Your task to perform on an android device: open app "Adobe Express: Graphic Design" (install if not already installed) and enter user name: "deliveries@gmail.com" and password: "regimentation" Image 0: 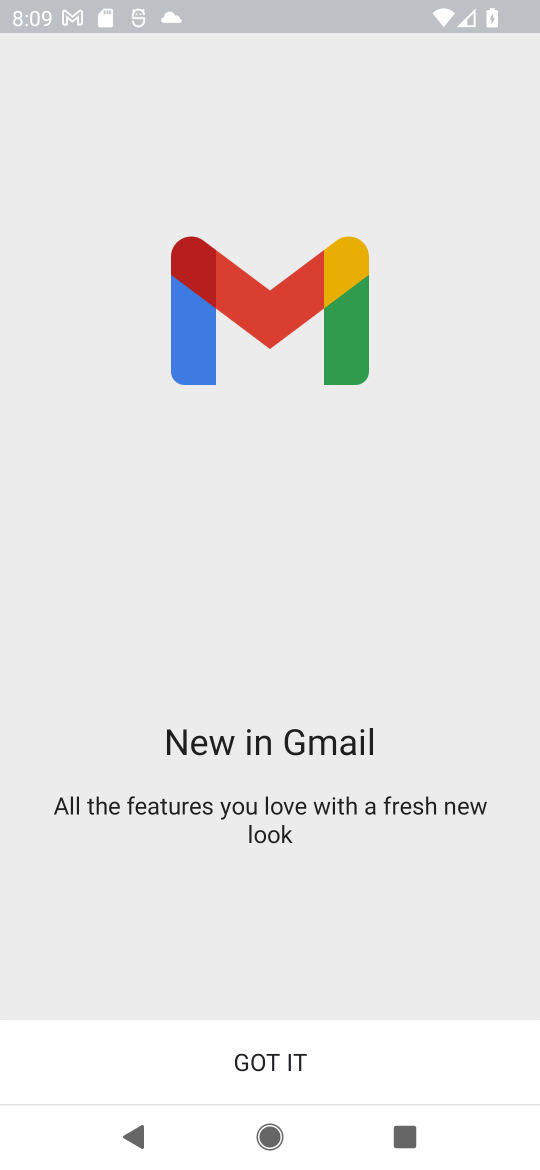
Step 0: press home button
Your task to perform on an android device: open app "Adobe Express: Graphic Design" (install if not already installed) and enter user name: "deliveries@gmail.com" and password: "regimentation" Image 1: 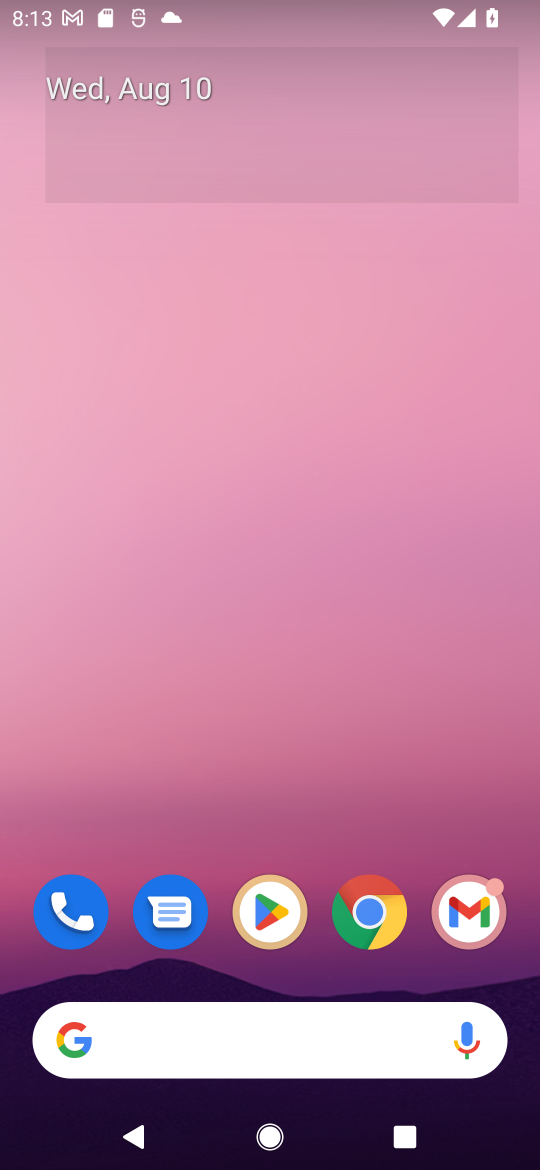
Step 1: drag from (408, 969) to (241, 6)
Your task to perform on an android device: open app "Adobe Express: Graphic Design" (install if not already installed) and enter user name: "deliveries@gmail.com" and password: "regimentation" Image 2: 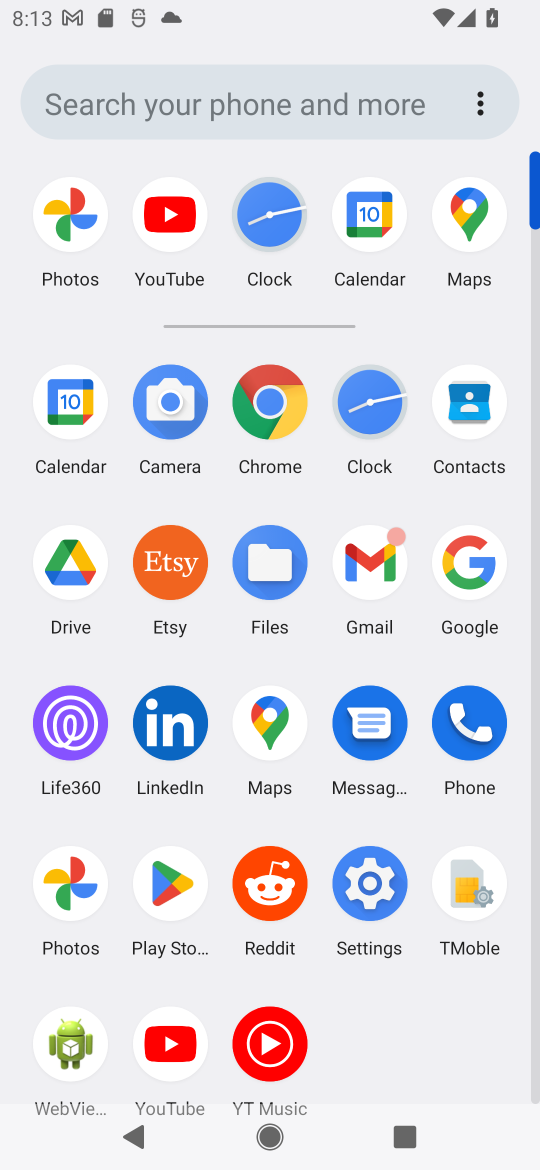
Step 2: click (152, 899)
Your task to perform on an android device: open app "Adobe Express: Graphic Design" (install if not already installed) and enter user name: "deliveries@gmail.com" and password: "regimentation" Image 3: 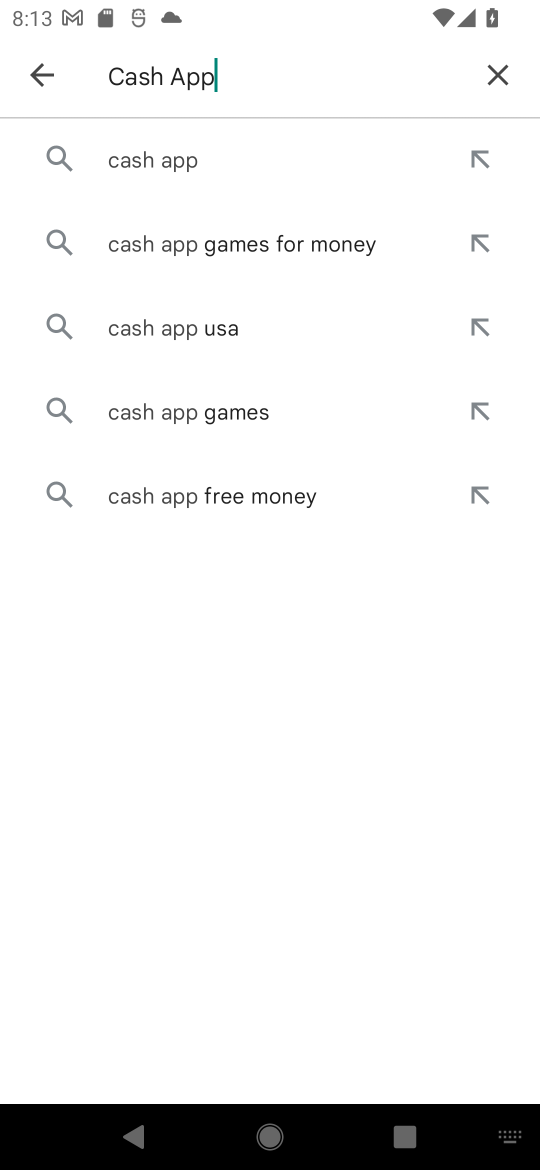
Step 3: press back button
Your task to perform on an android device: open app "Adobe Express: Graphic Design" (install if not already installed) and enter user name: "deliveries@gmail.com" and password: "regimentation" Image 4: 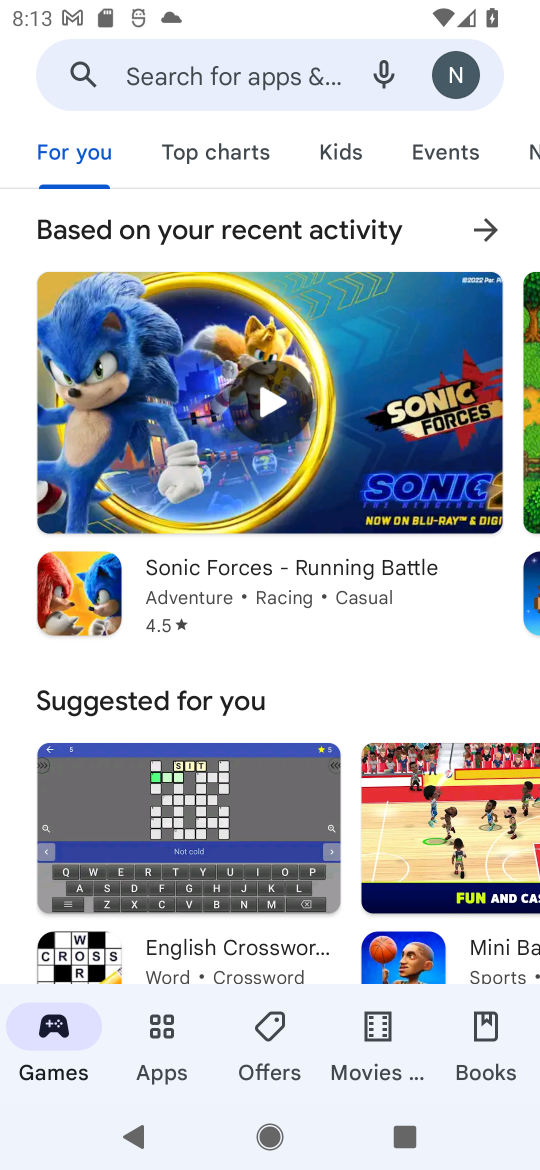
Step 4: click (197, 78)
Your task to perform on an android device: open app "Adobe Express: Graphic Design" (install if not already installed) and enter user name: "deliveries@gmail.com" and password: "regimentation" Image 5: 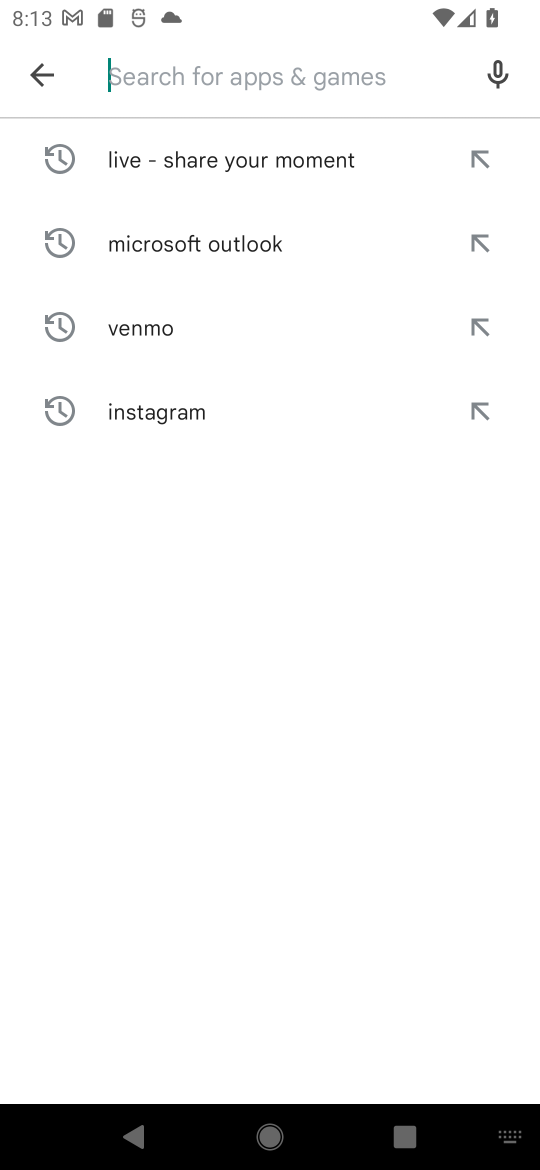
Step 5: type "Adobe Express: Graphic Design"
Your task to perform on an android device: open app "Adobe Express: Graphic Design" (install if not already installed) and enter user name: "deliveries@gmail.com" and password: "regimentation" Image 6: 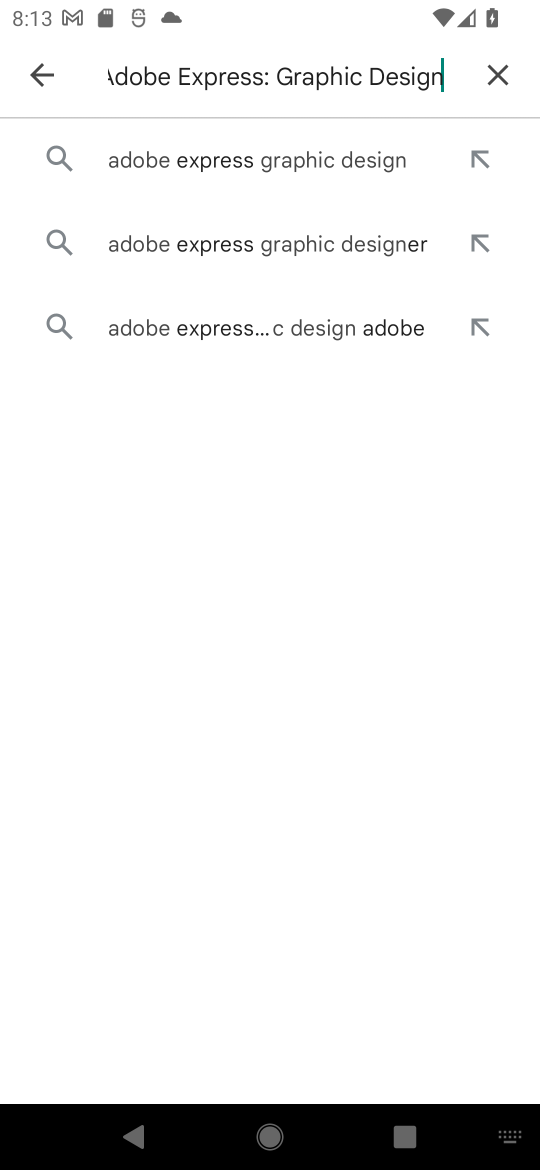
Step 6: click (156, 168)
Your task to perform on an android device: open app "Adobe Express: Graphic Design" (install if not already installed) and enter user name: "deliveries@gmail.com" and password: "regimentation" Image 7: 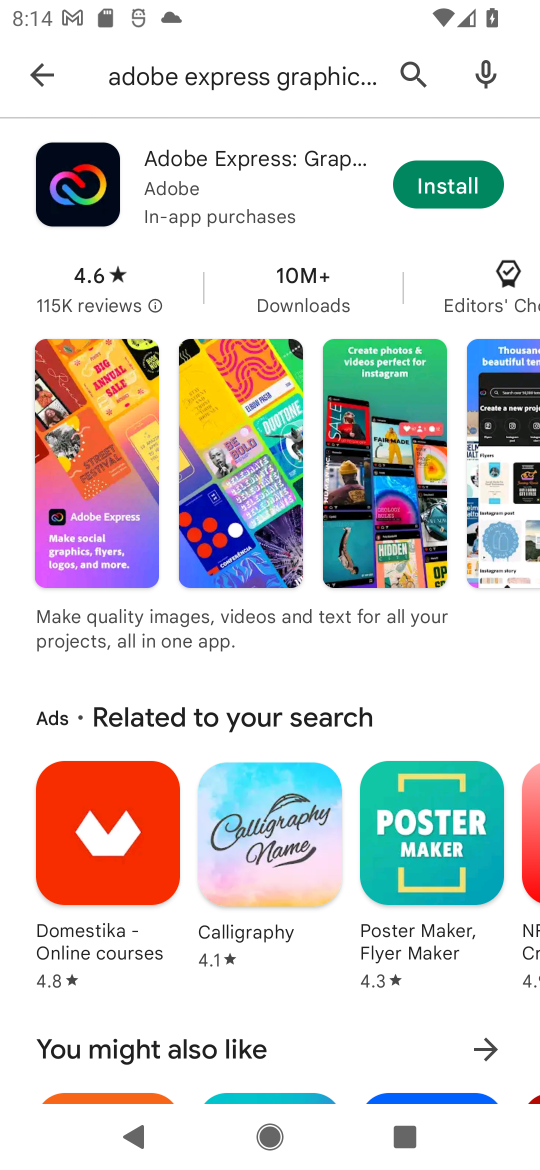
Step 7: task complete